Your task to perform on an android device: Go to eBay Image 0: 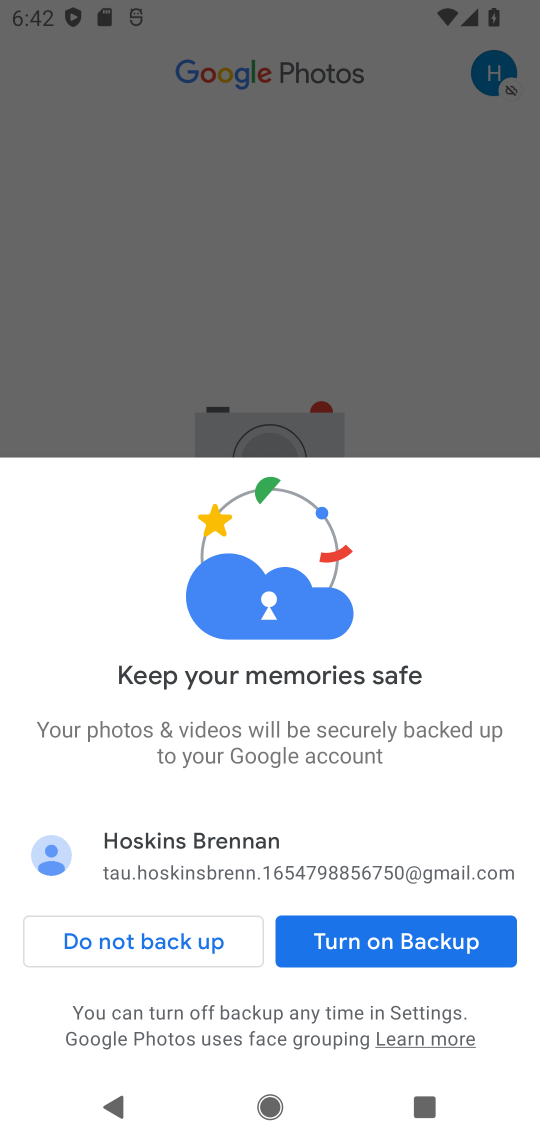
Step 0: click (489, 944)
Your task to perform on an android device: Go to eBay Image 1: 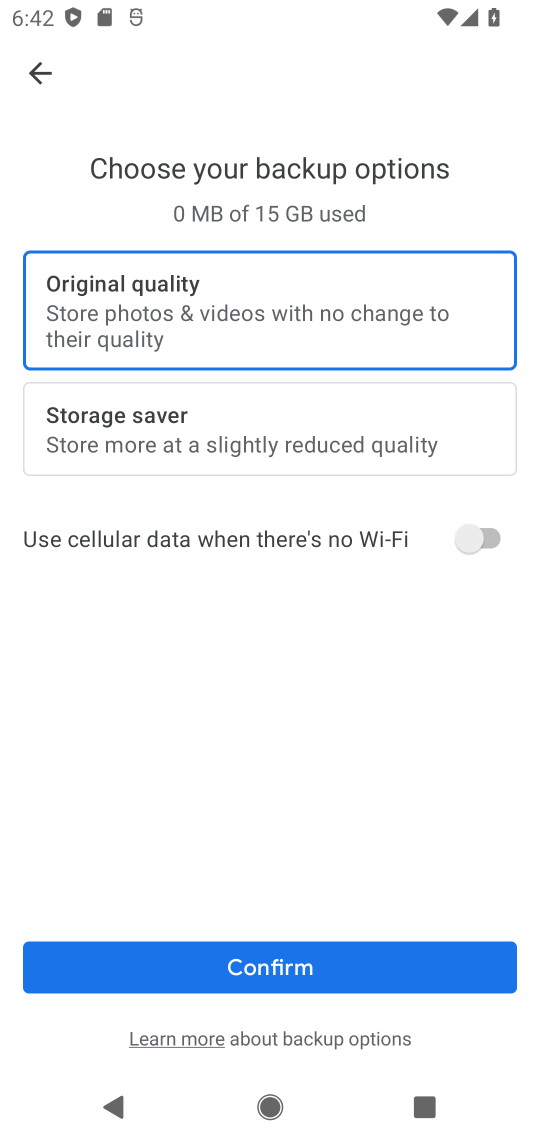
Step 1: press home button
Your task to perform on an android device: Go to eBay Image 2: 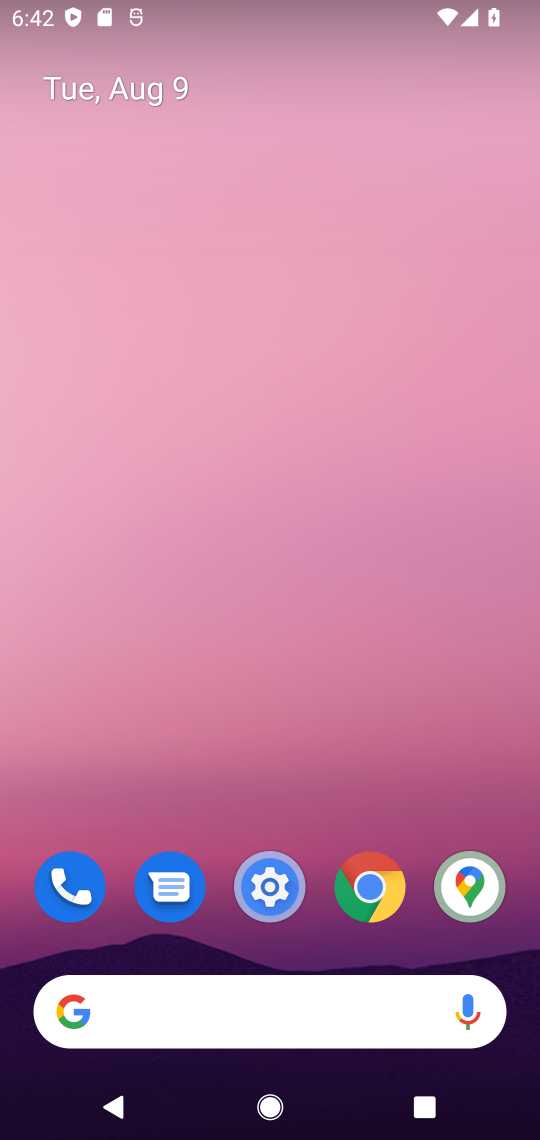
Step 2: click (359, 1013)
Your task to perform on an android device: Go to eBay Image 3: 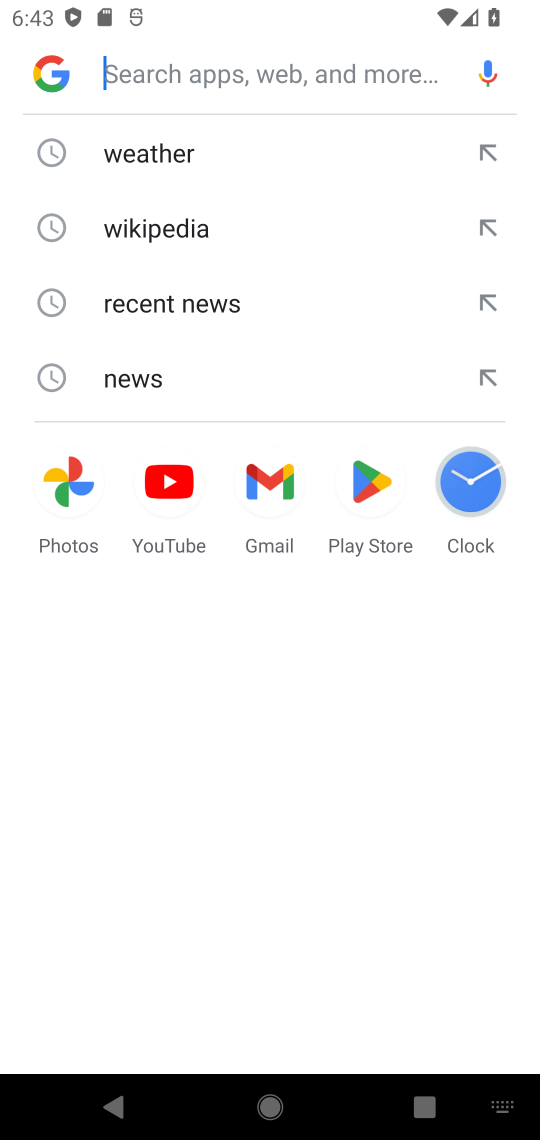
Step 3: type "ebay"
Your task to perform on an android device: Go to eBay Image 4: 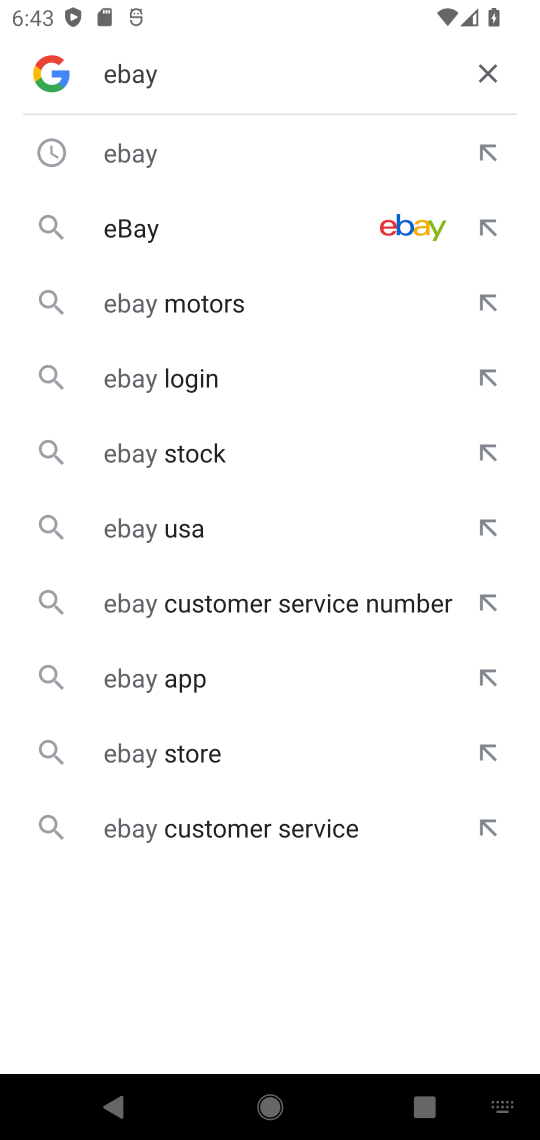
Step 4: click (274, 225)
Your task to perform on an android device: Go to eBay Image 5: 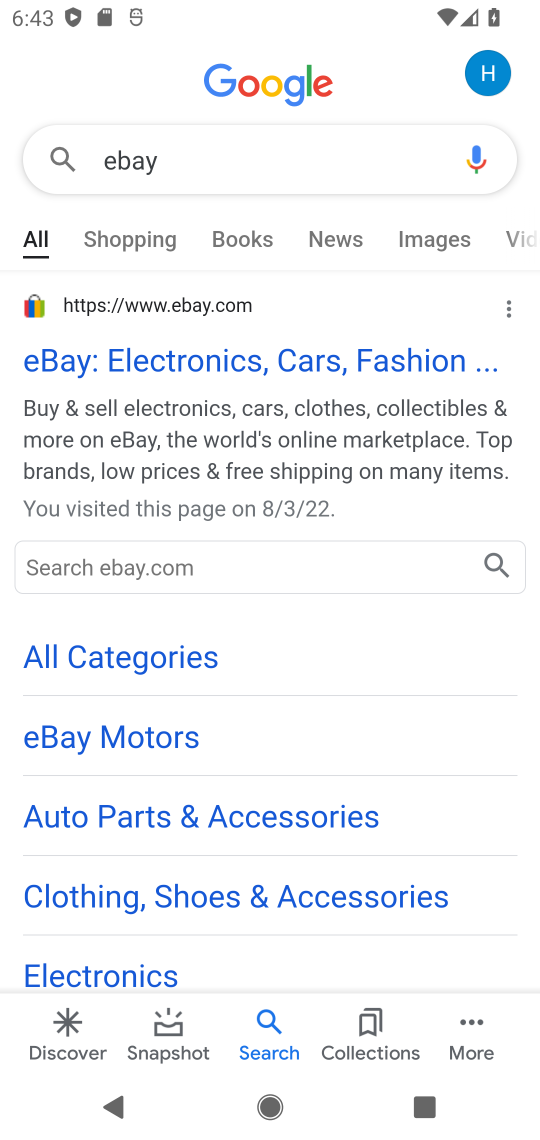
Step 5: click (331, 356)
Your task to perform on an android device: Go to eBay Image 6: 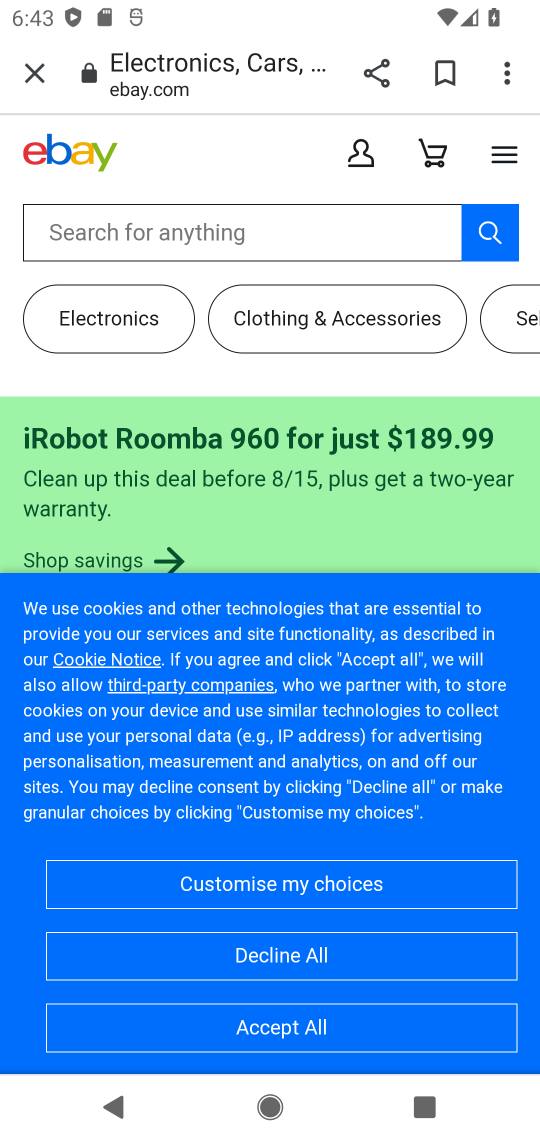
Step 6: task complete